Your task to perform on an android device: Go to ESPN.com Image 0: 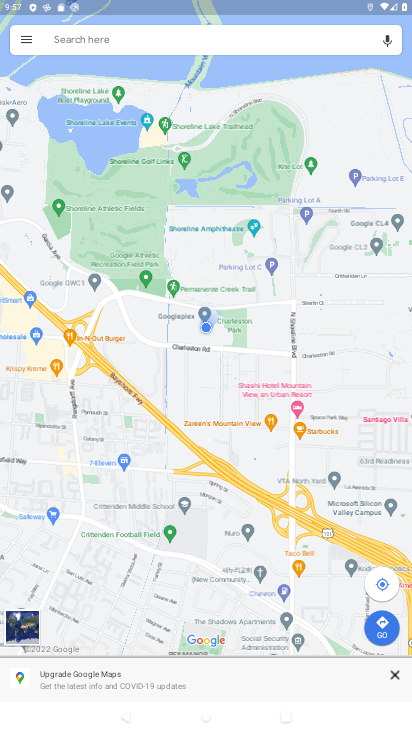
Step 0: press home button
Your task to perform on an android device: Go to ESPN.com Image 1: 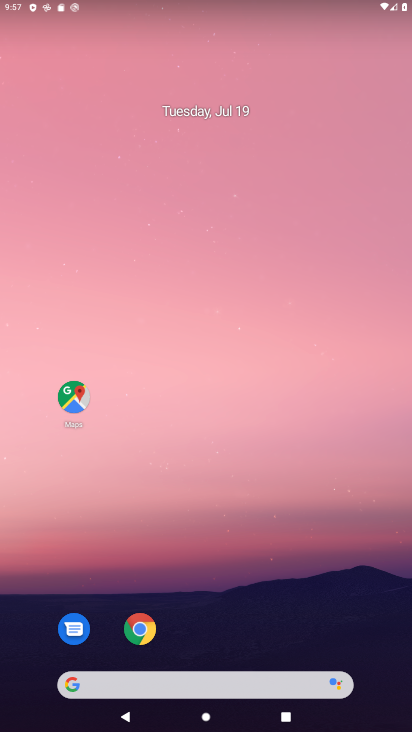
Step 1: click (71, 691)
Your task to perform on an android device: Go to ESPN.com Image 2: 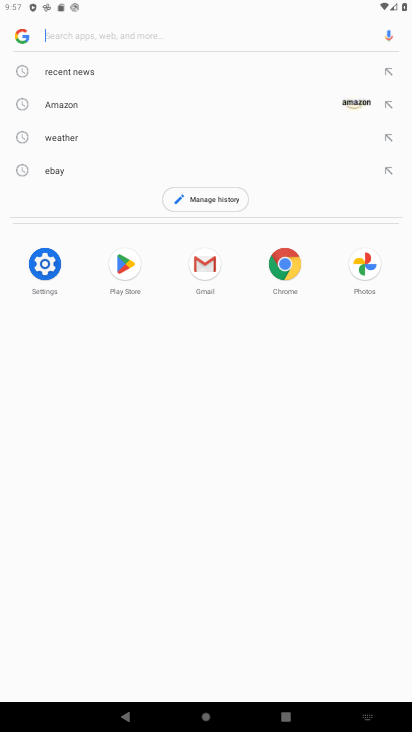
Step 2: type "ESPN.com"
Your task to perform on an android device: Go to ESPN.com Image 3: 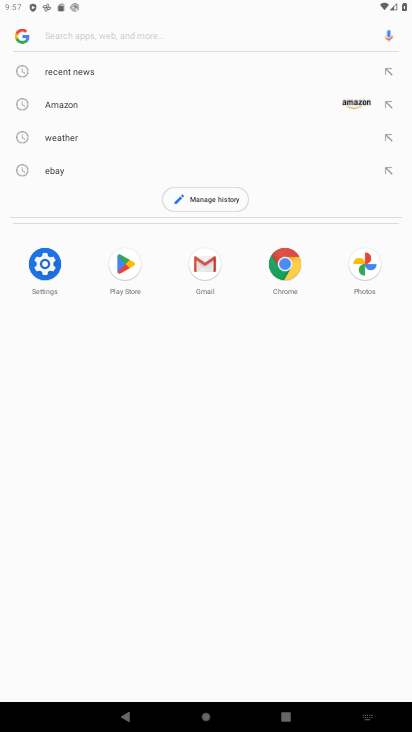
Step 3: click (56, 34)
Your task to perform on an android device: Go to ESPN.com Image 4: 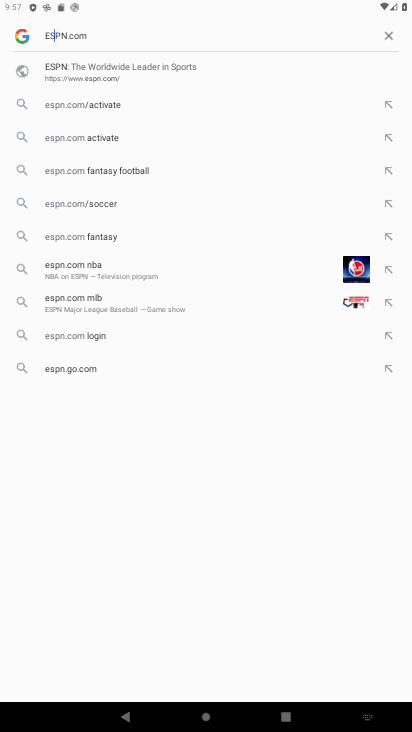
Step 4: press enter
Your task to perform on an android device: Go to ESPN.com Image 5: 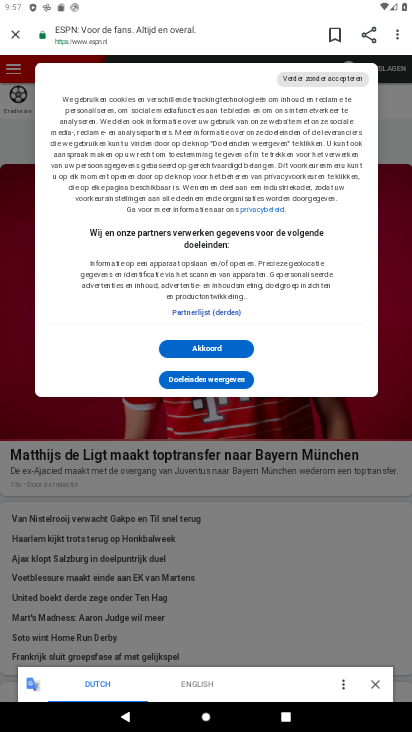
Step 5: click (225, 345)
Your task to perform on an android device: Go to ESPN.com Image 6: 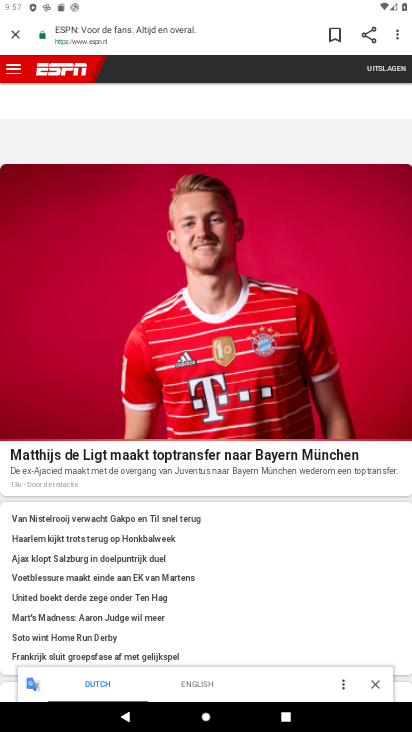
Step 6: task complete